Your task to perform on an android device: empty trash in the gmail app Image 0: 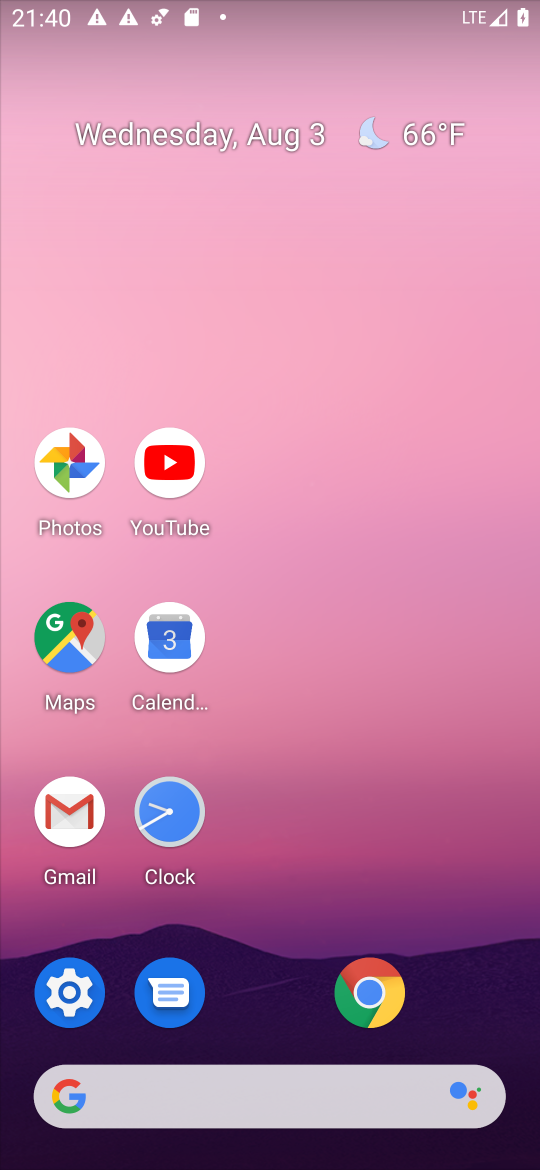
Step 0: click (73, 817)
Your task to perform on an android device: empty trash in the gmail app Image 1: 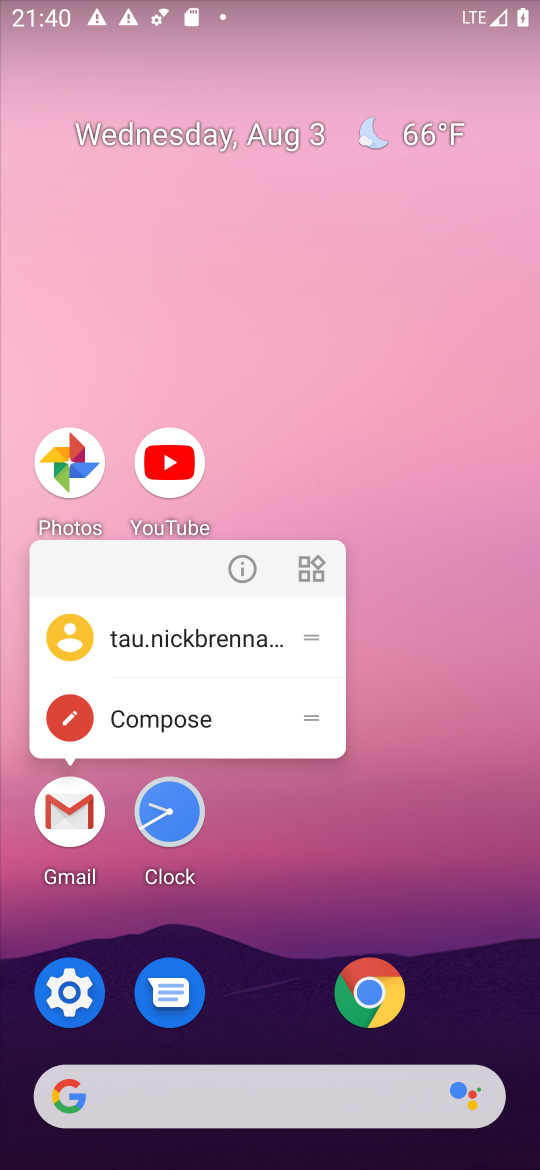
Step 1: click (73, 817)
Your task to perform on an android device: empty trash in the gmail app Image 2: 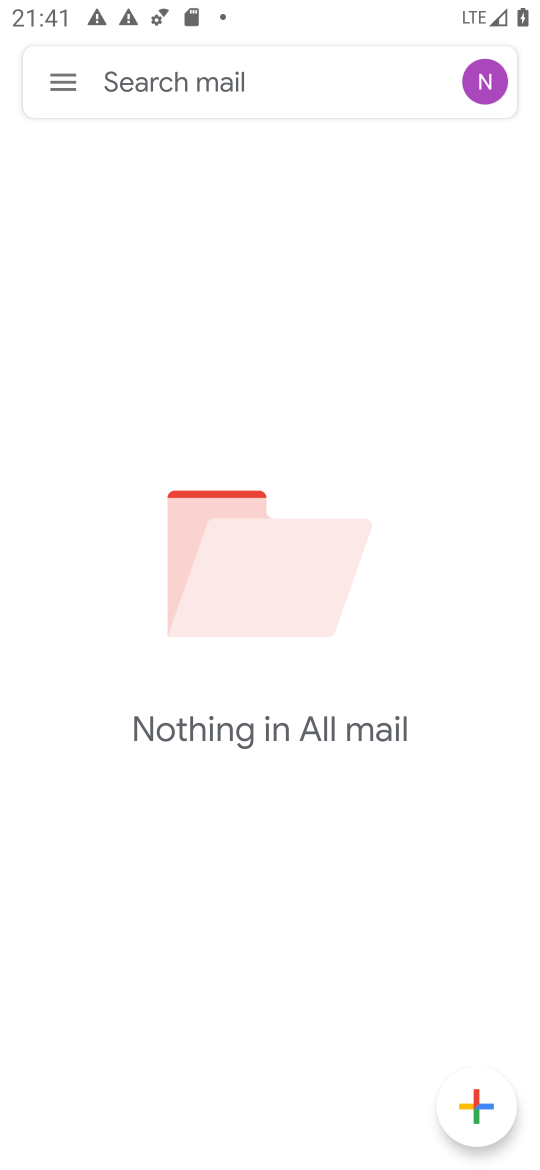
Step 2: click (51, 78)
Your task to perform on an android device: empty trash in the gmail app Image 3: 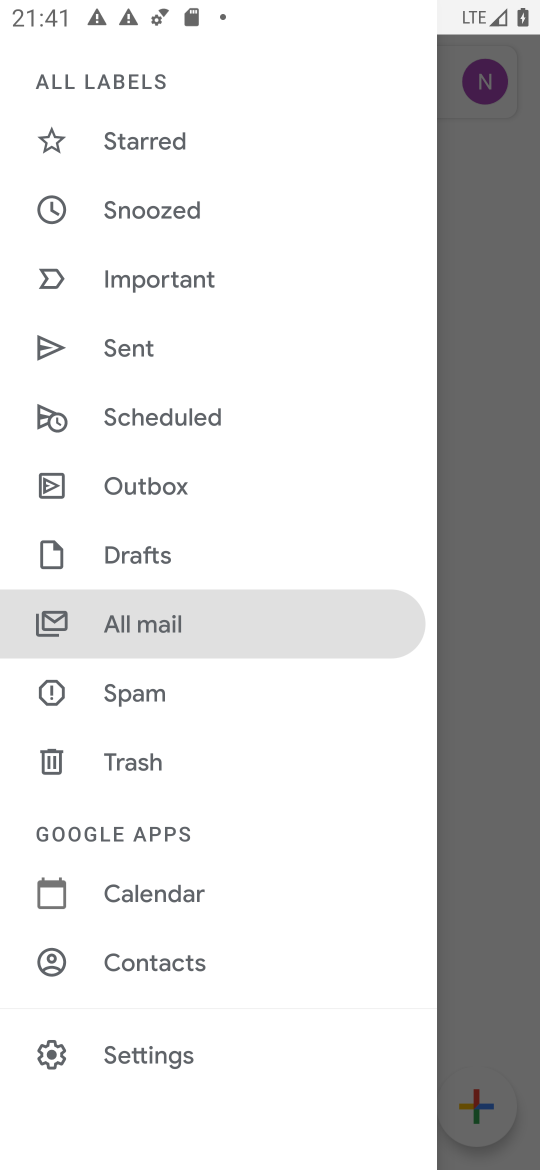
Step 3: click (133, 751)
Your task to perform on an android device: empty trash in the gmail app Image 4: 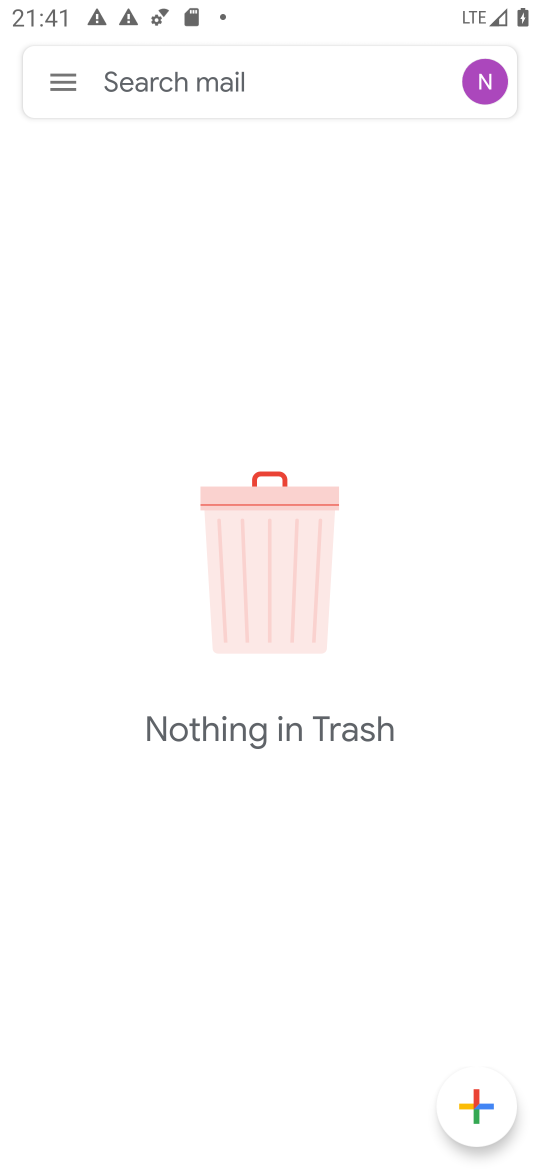
Step 4: task complete